Your task to perform on an android device: Go to Amazon Image 0: 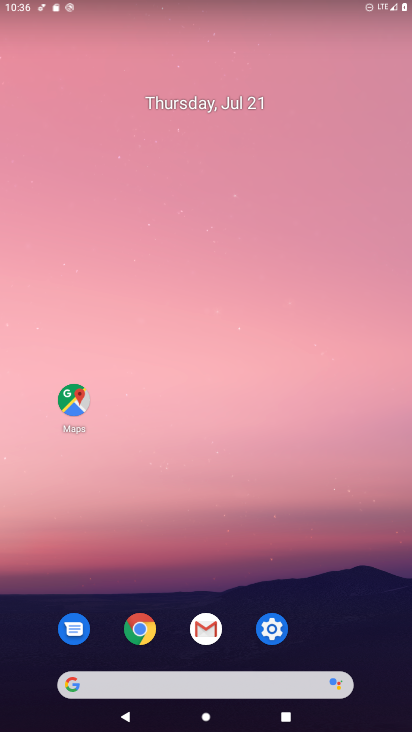
Step 0: drag from (271, 670) to (277, 77)
Your task to perform on an android device: Go to Amazon Image 1: 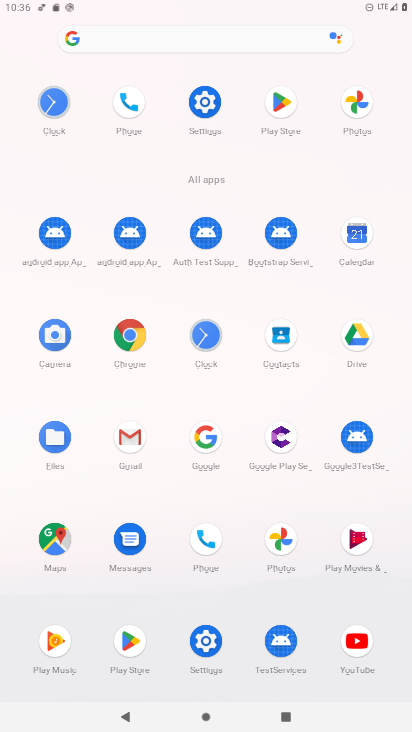
Step 1: click (138, 333)
Your task to perform on an android device: Go to Amazon Image 2: 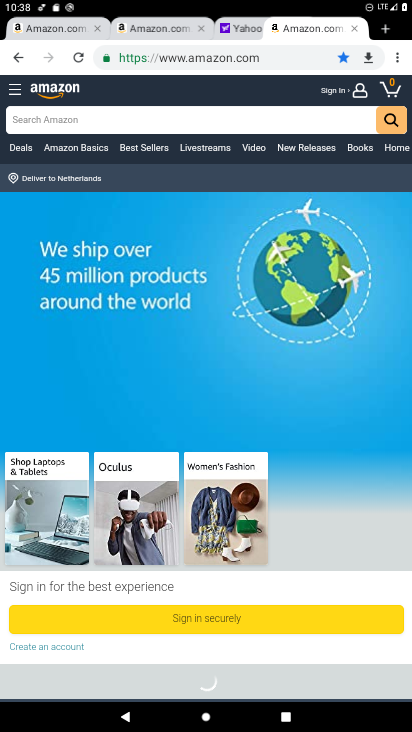
Step 2: task complete